Your task to perform on an android device: Open settings on Google Maps Image 0: 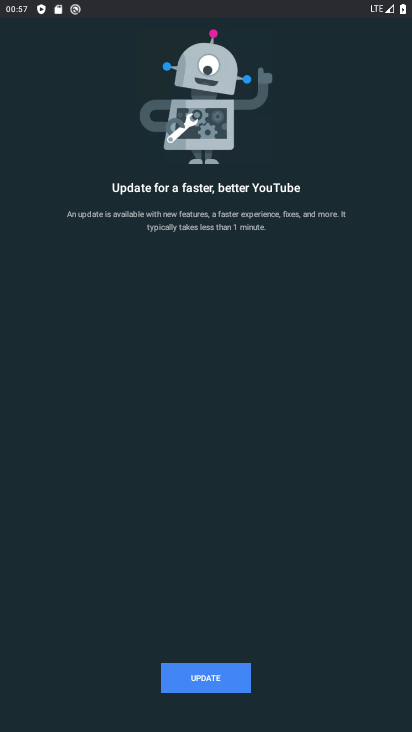
Step 0: press home button
Your task to perform on an android device: Open settings on Google Maps Image 1: 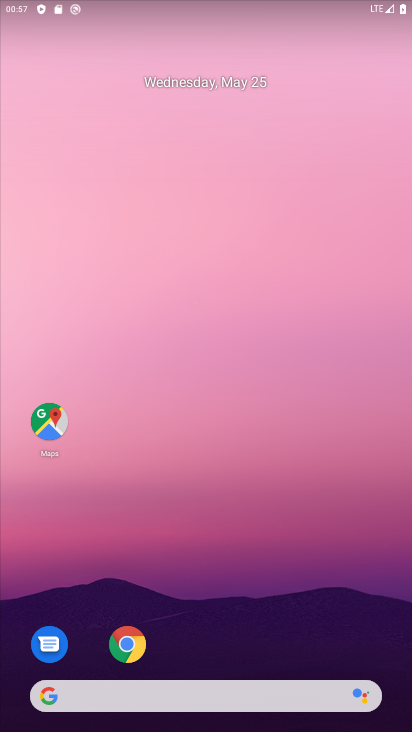
Step 1: click (41, 419)
Your task to perform on an android device: Open settings on Google Maps Image 2: 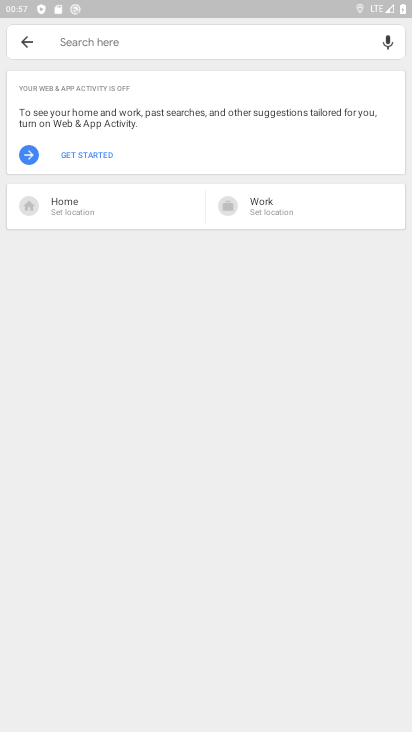
Step 2: click (28, 37)
Your task to perform on an android device: Open settings on Google Maps Image 3: 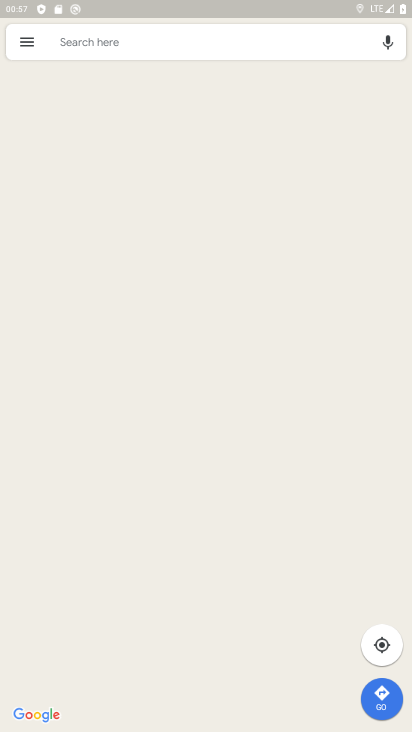
Step 3: click (25, 32)
Your task to perform on an android device: Open settings on Google Maps Image 4: 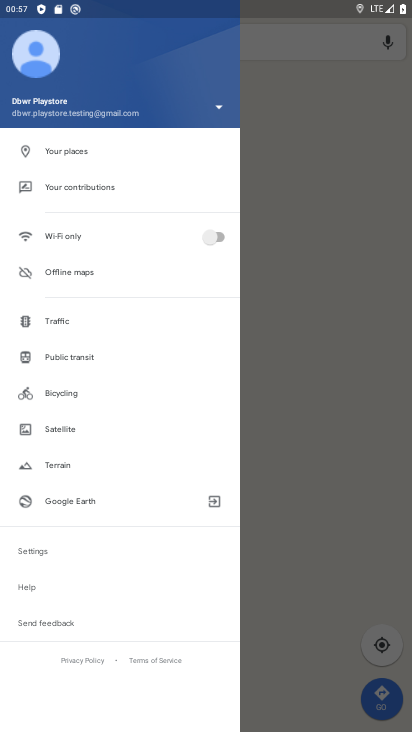
Step 4: click (31, 548)
Your task to perform on an android device: Open settings on Google Maps Image 5: 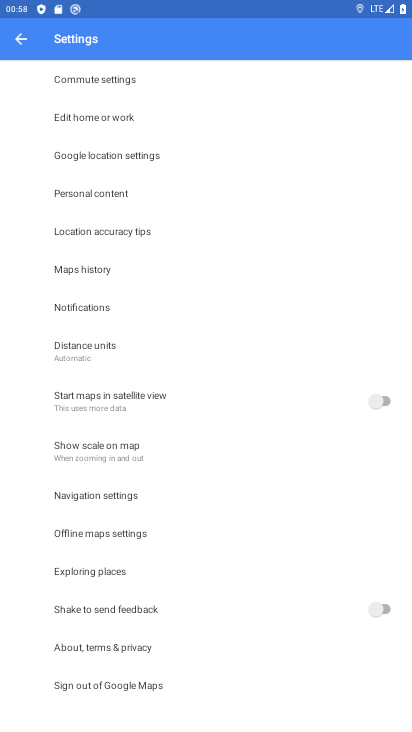
Step 5: task complete